Your task to perform on an android device: turn off sleep mode Image 0: 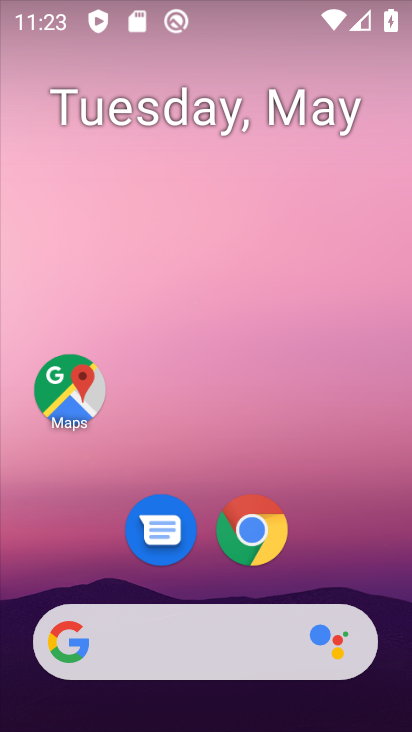
Step 0: drag from (198, 566) to (257, 188)
Your task to perform on an android device: turn off sleep mode Image 1: 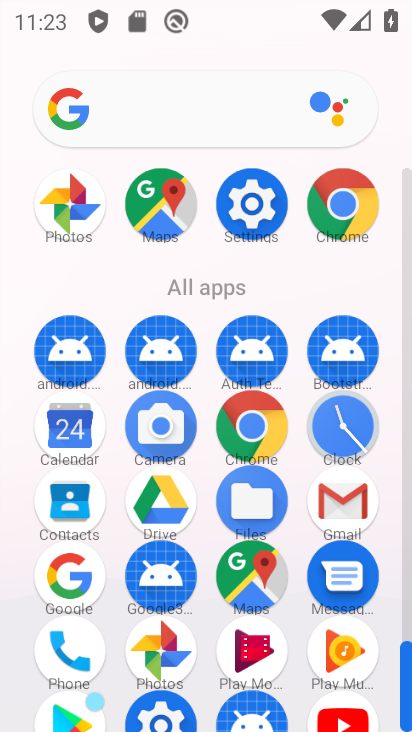
Step 1: click (252, 204)
Your task to perform on an android device: turn off sleep mode Image 2: 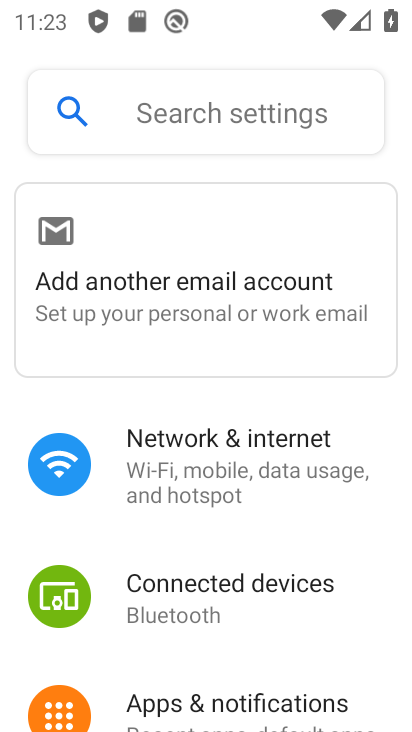
Step 2: drag from (277, 656) to (298, 387)
Your task to perform on an android device: turn off sleep mode Image 3: 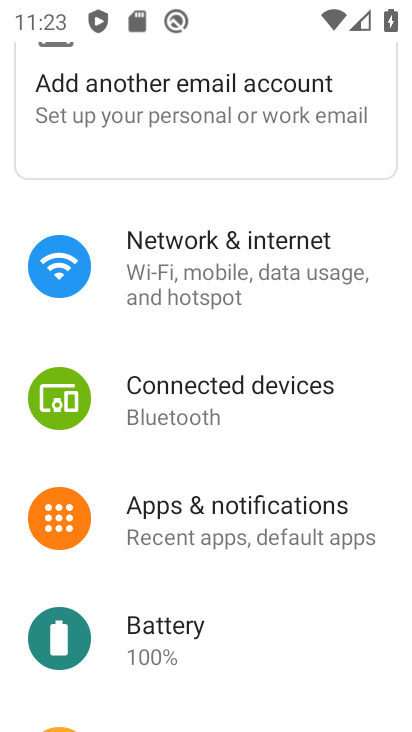
Step 3: drag from (261, 619) to (276, 344)
Your task to perform on an android device: turn off sleep mode Image 4: 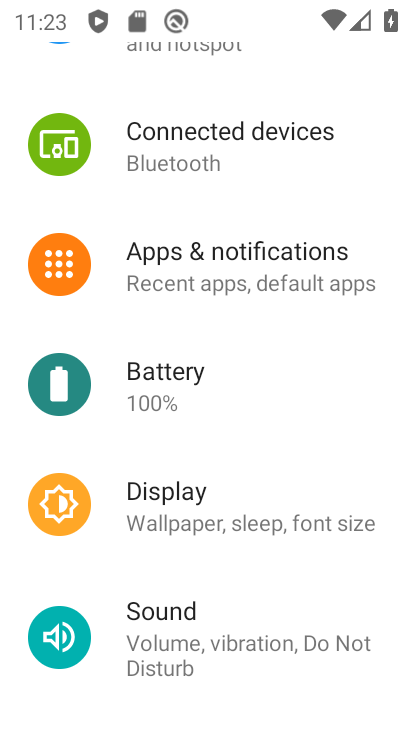
Step 4: click (181, 509)
Your task to perform on an android device: turn off sleep mode Image 5: 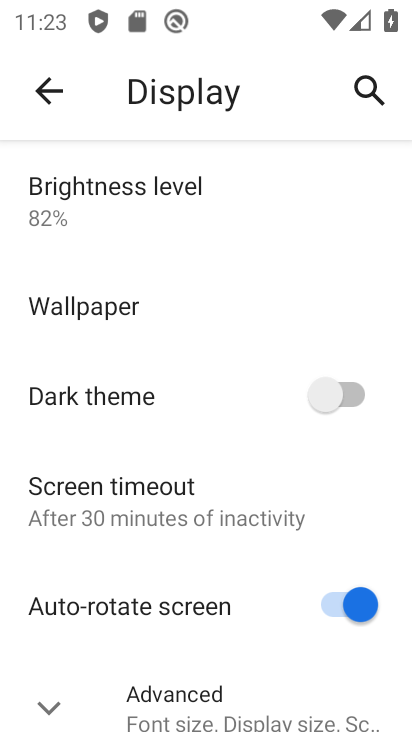
Step 5: task complete